Your task to perform on an android device: change text size in settings app Image 0: 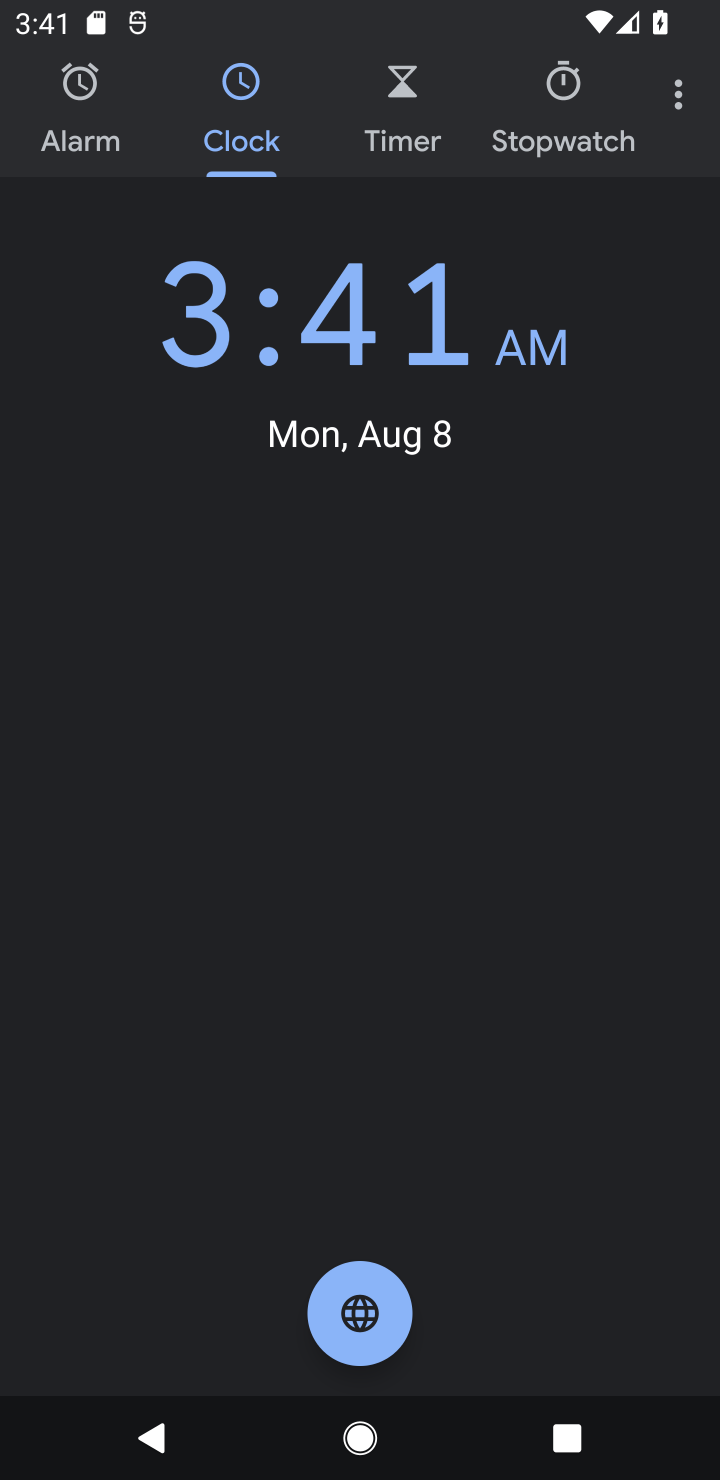
Step 0: press back button
Your task to perform on an android device: change text size in settings app Image 1: 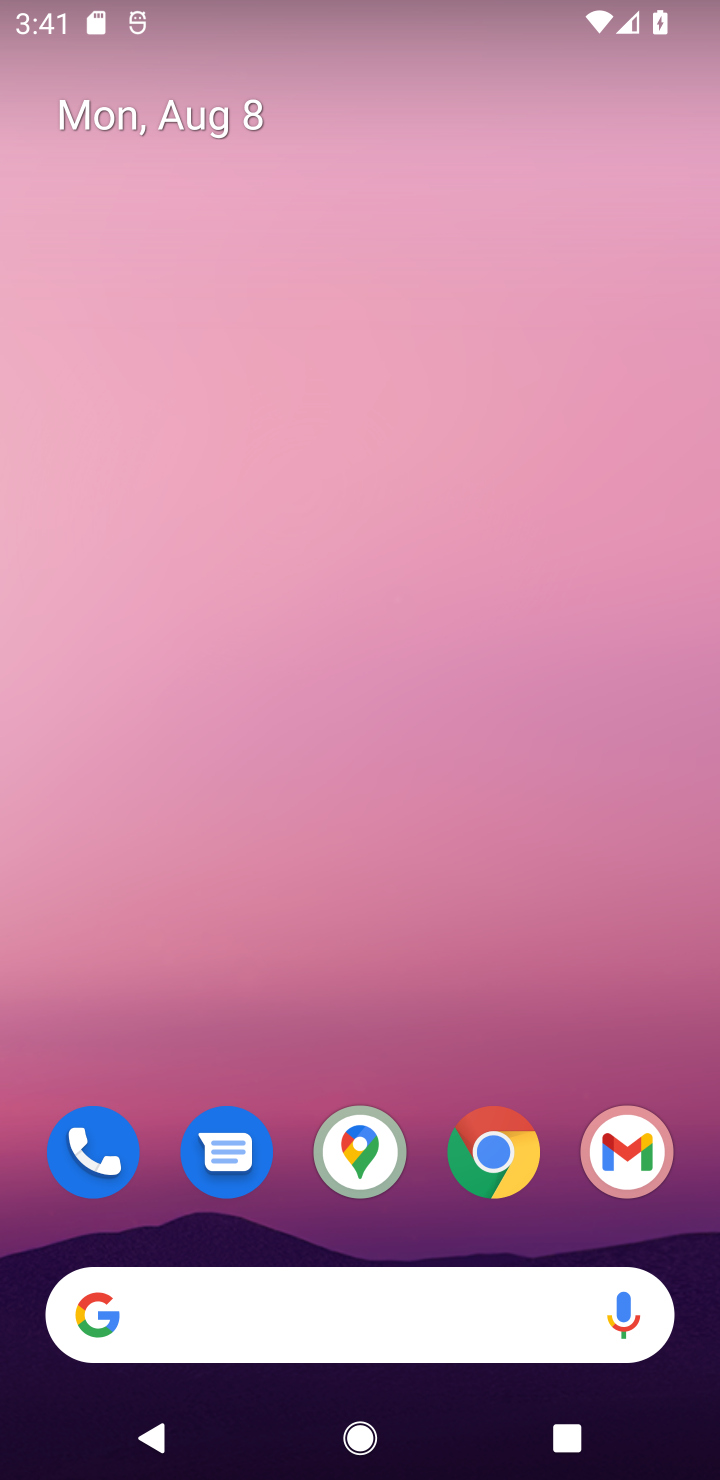
Step 1: drag from (282, 864) to (403, 86)
Your task to perform on an android device: change text size in settings app Image 2: 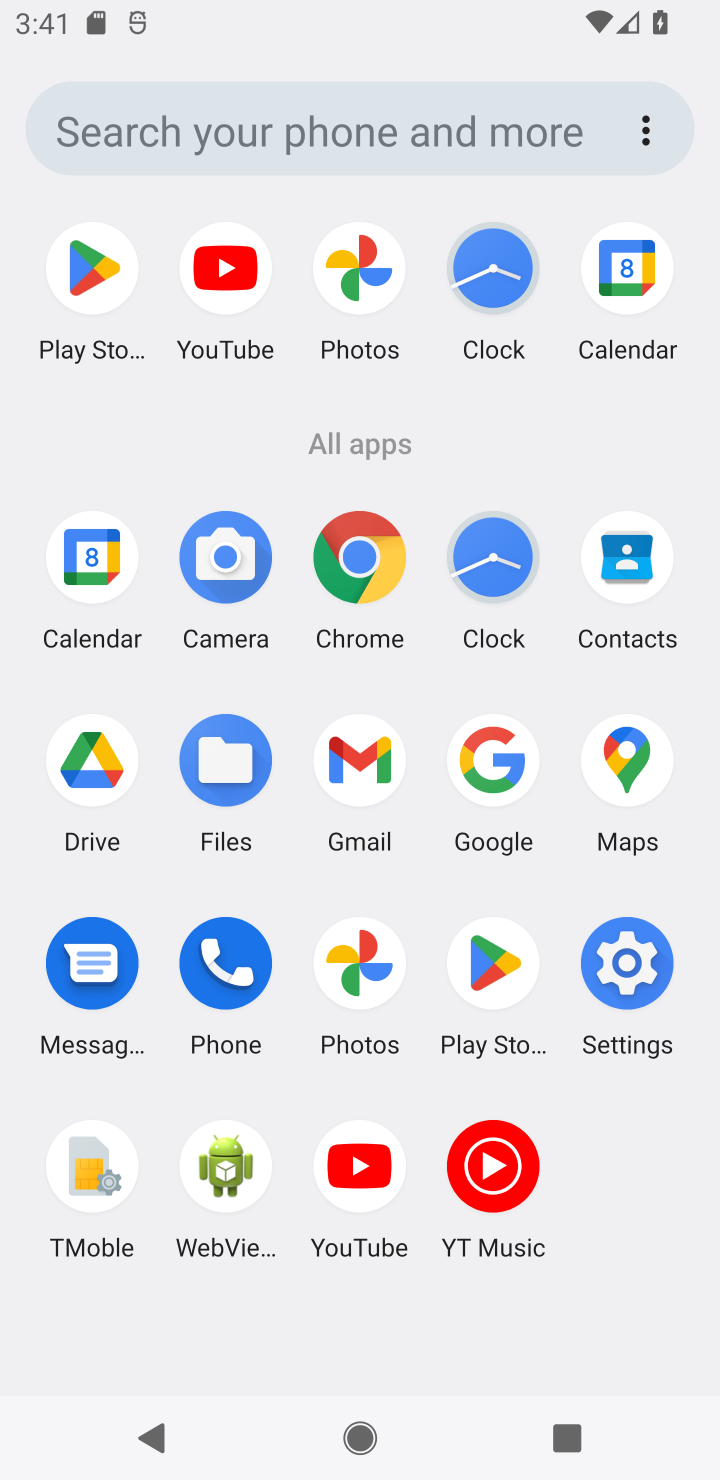
Step 2: click (631, 950)
Your task to perform on an android device: change text size in settings app Image 3: 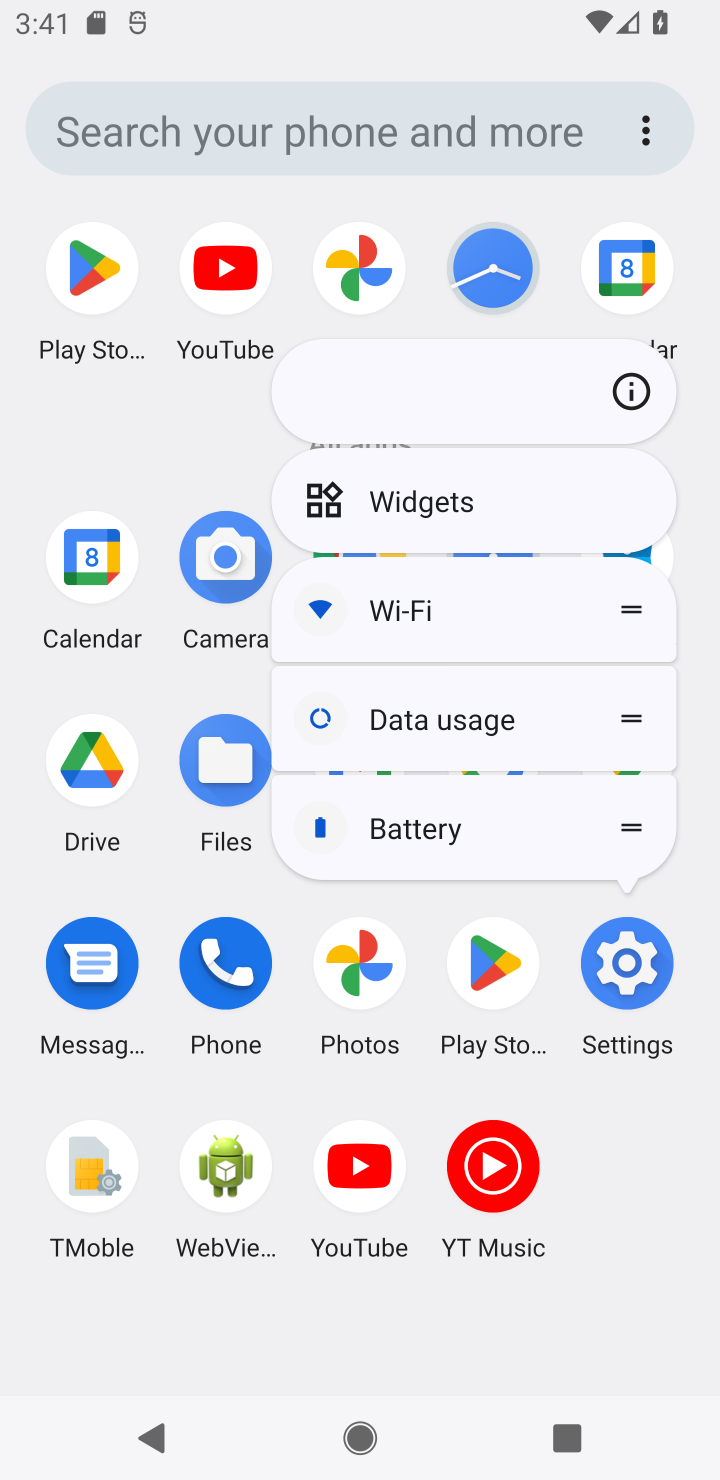
Step 3: click (641, 985)
Your task to perform on an android device: change text size in settings app Image 4: 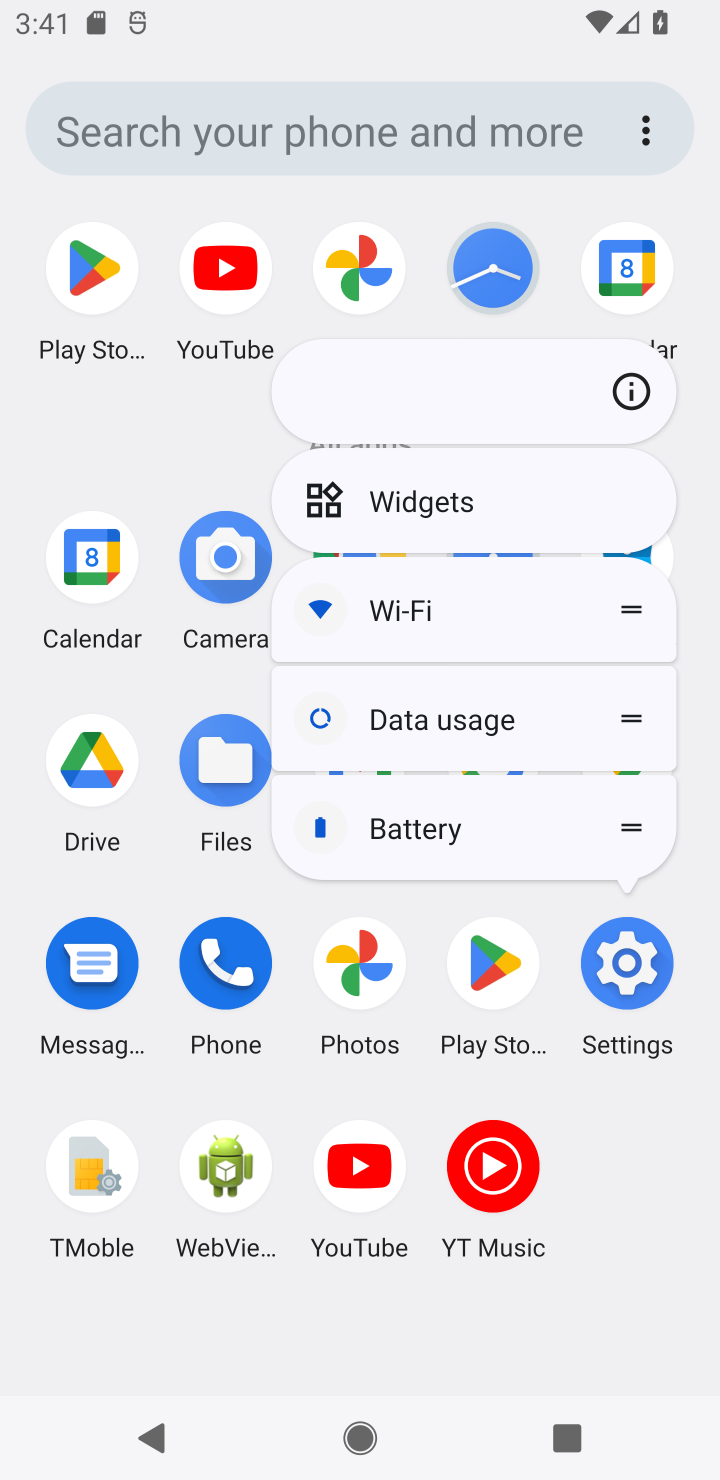
Step 4: click (621, 937)
Your task to perform on an android device: change text size in settings app Image 5: 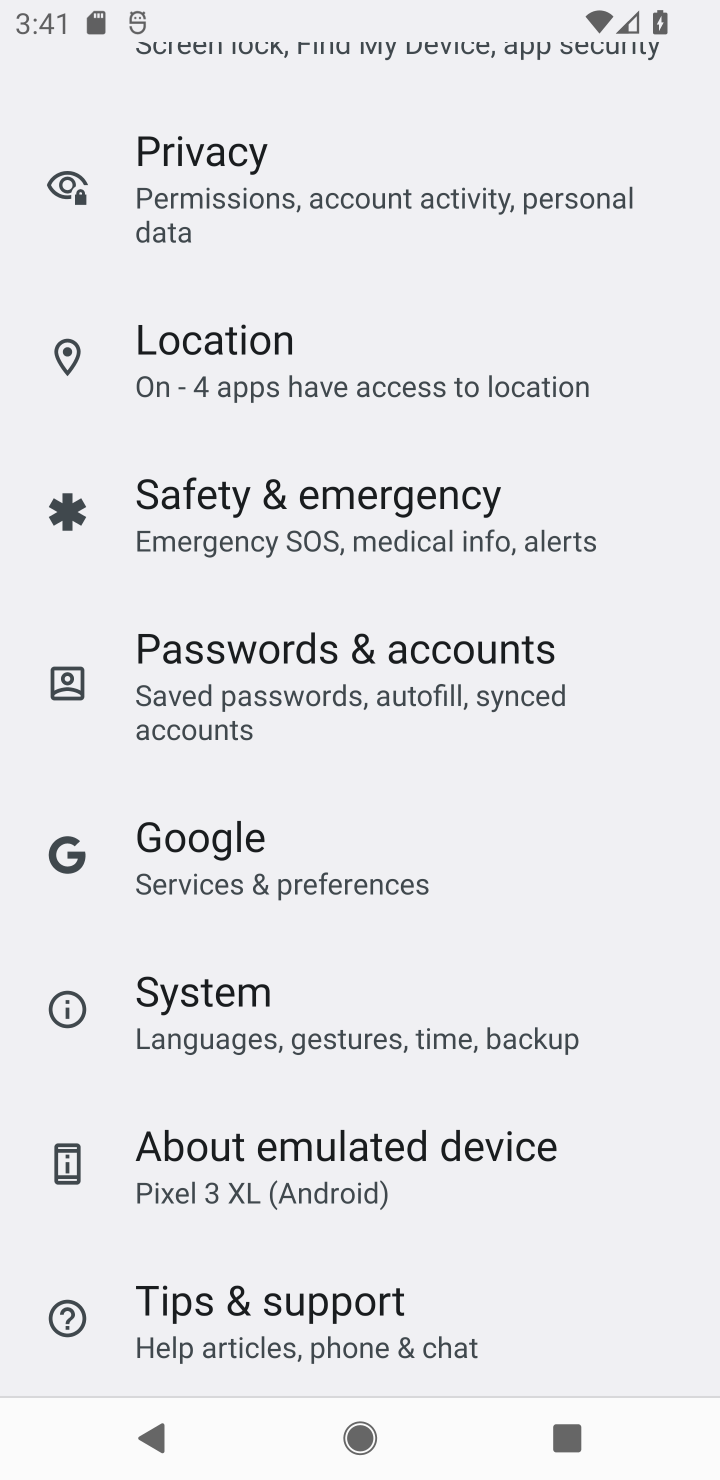
Step 5: drag from (266, 317) to (293, 1468)
Your task to perform on an android device: change text size in settings app Image 6: 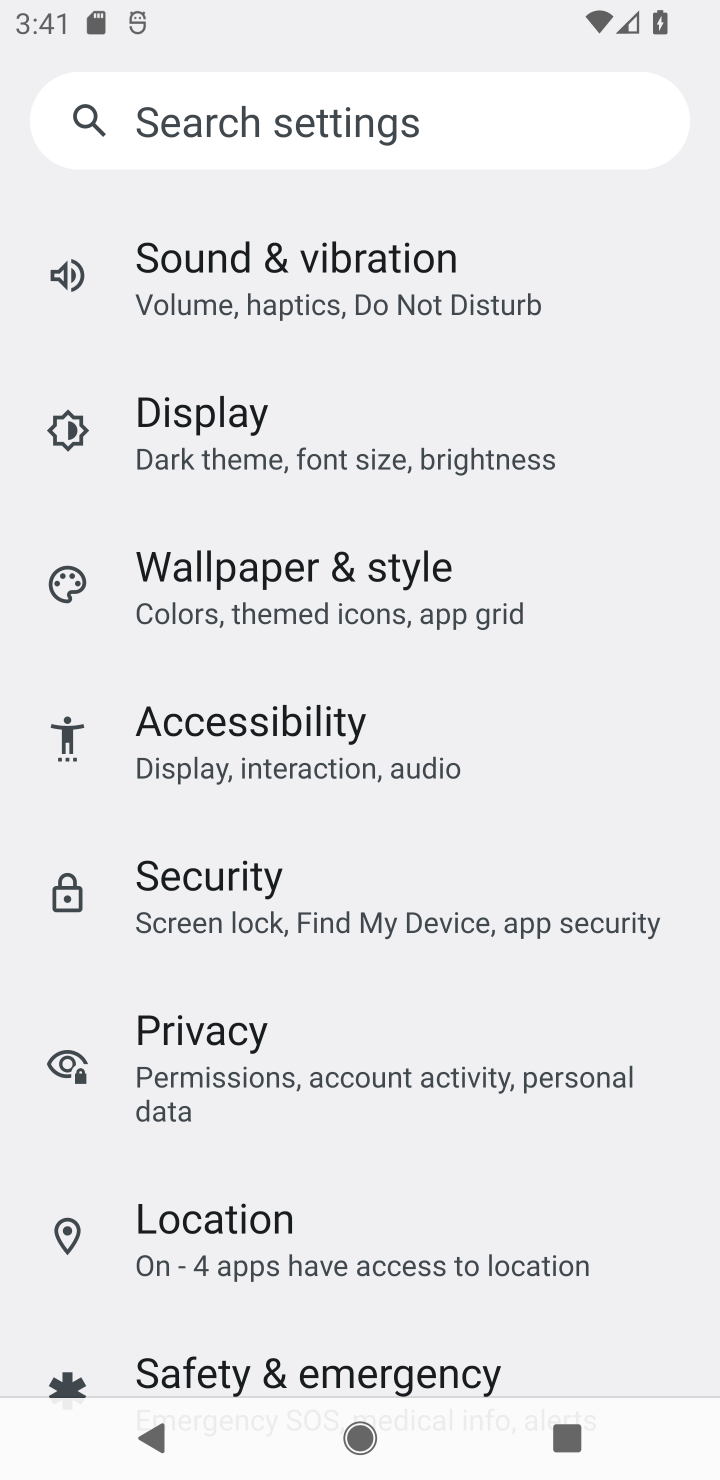
Step 6: click (297, 116)
Your task to perform on an android device: change text size in settings app Image 7: 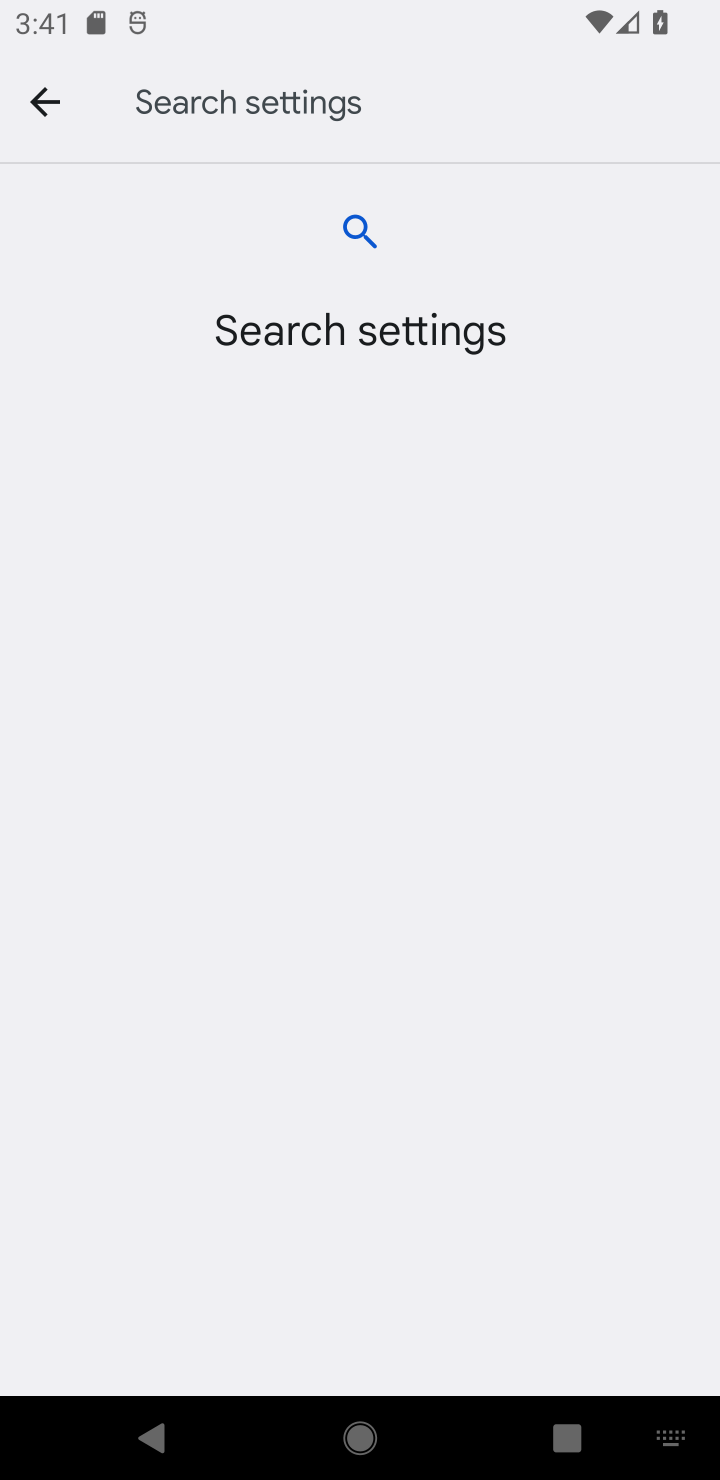
Step 7: type "text size"
Your task to perform on an android device: change text size in settings app Image 8: 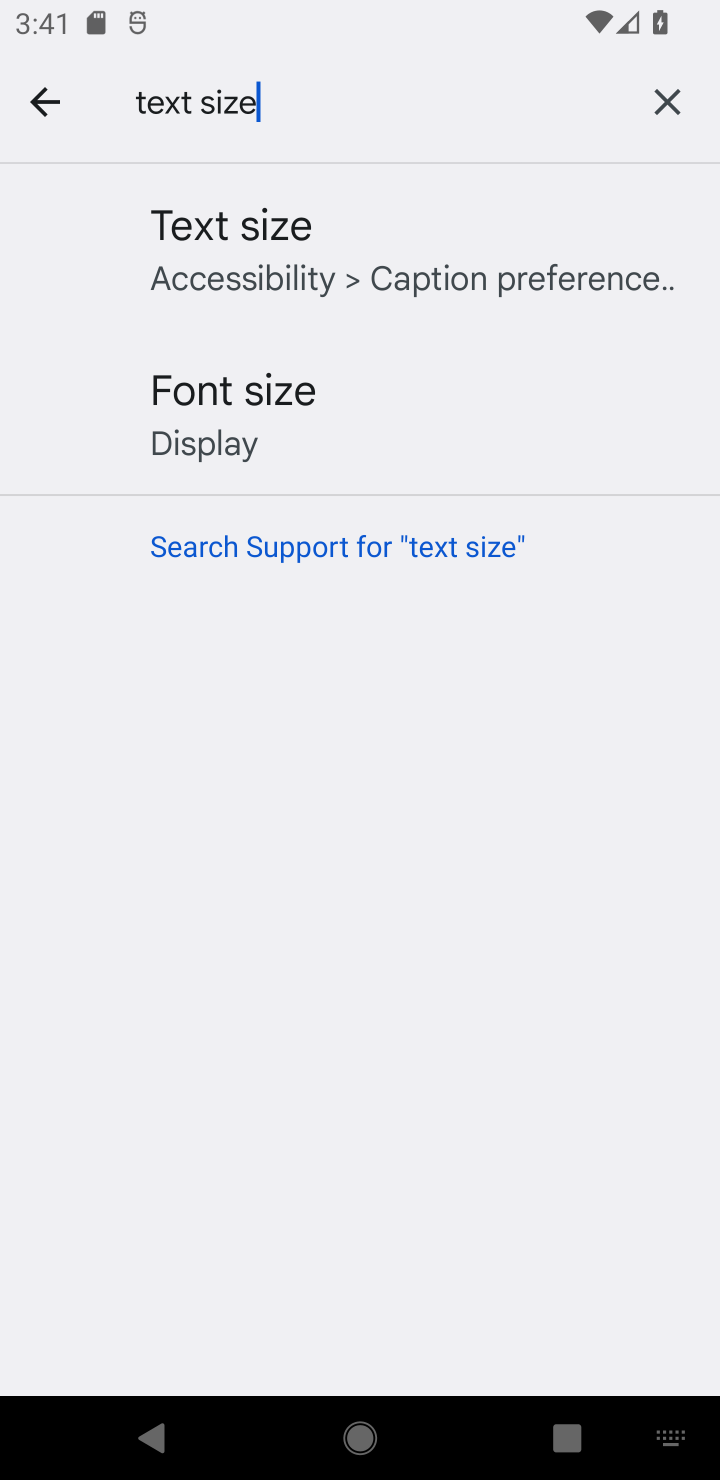
Step 8: click (259, 404)
Your task to perform on an android device: change text size in settings app Image 9: 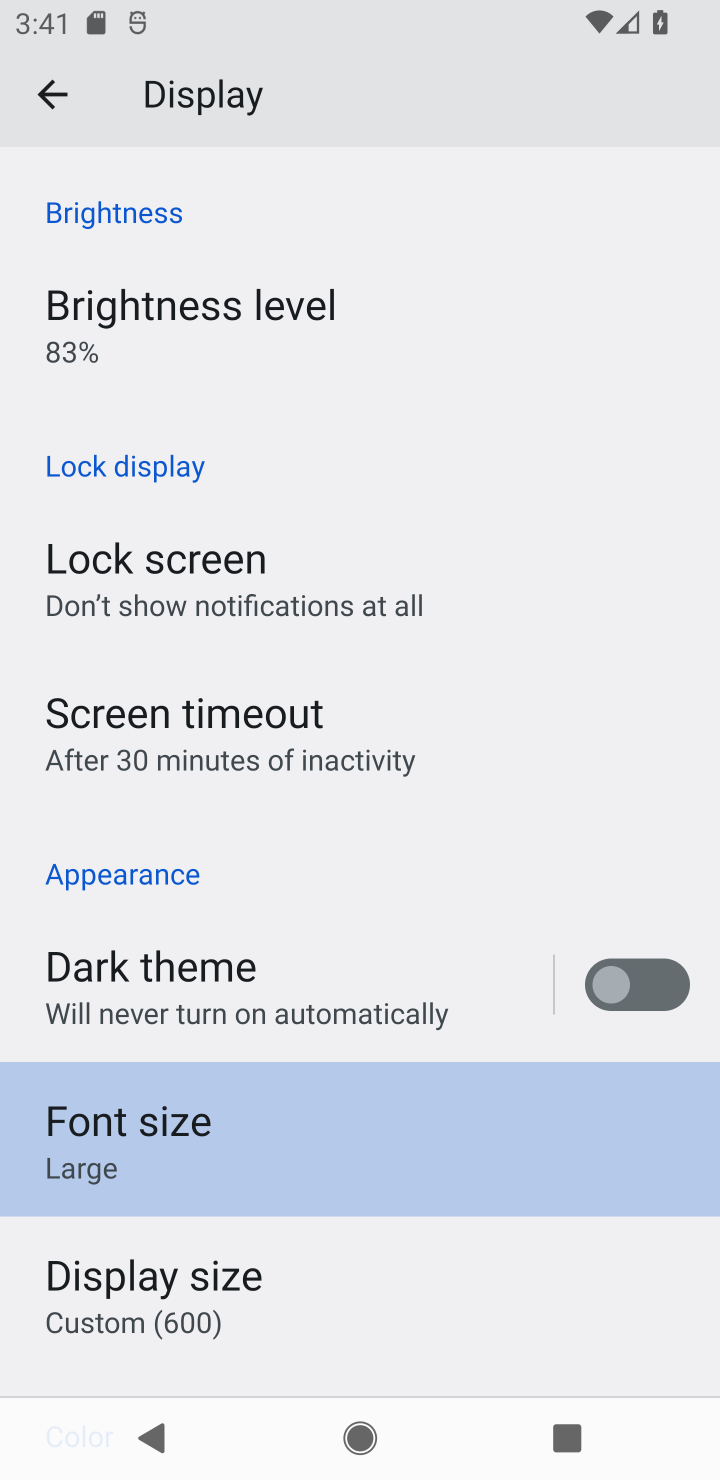
Step 9: click (203, 1302)
Your task to perform on an android device: change text size in settings app Image 10: 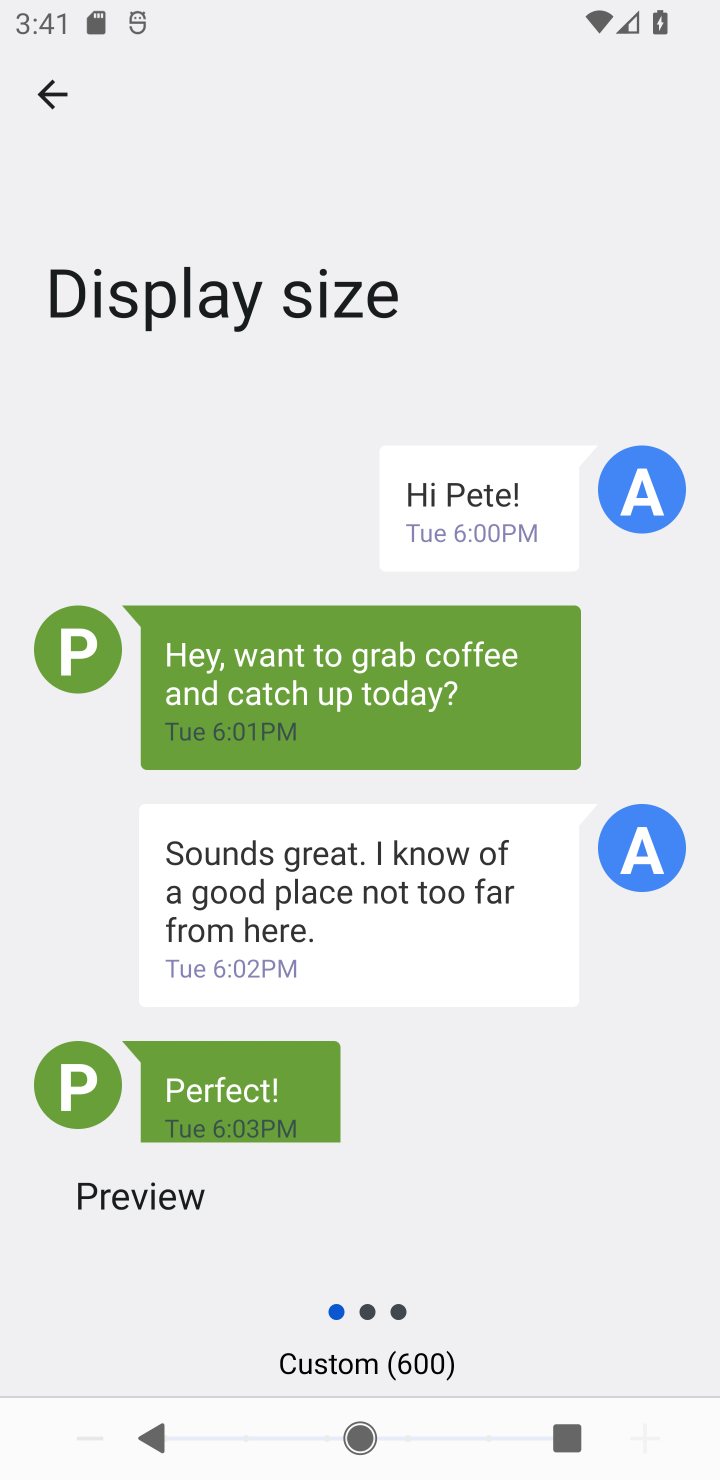
Step 10: click (54, 71)
Your task to perform on an android device: change text size in settings app Image 11: 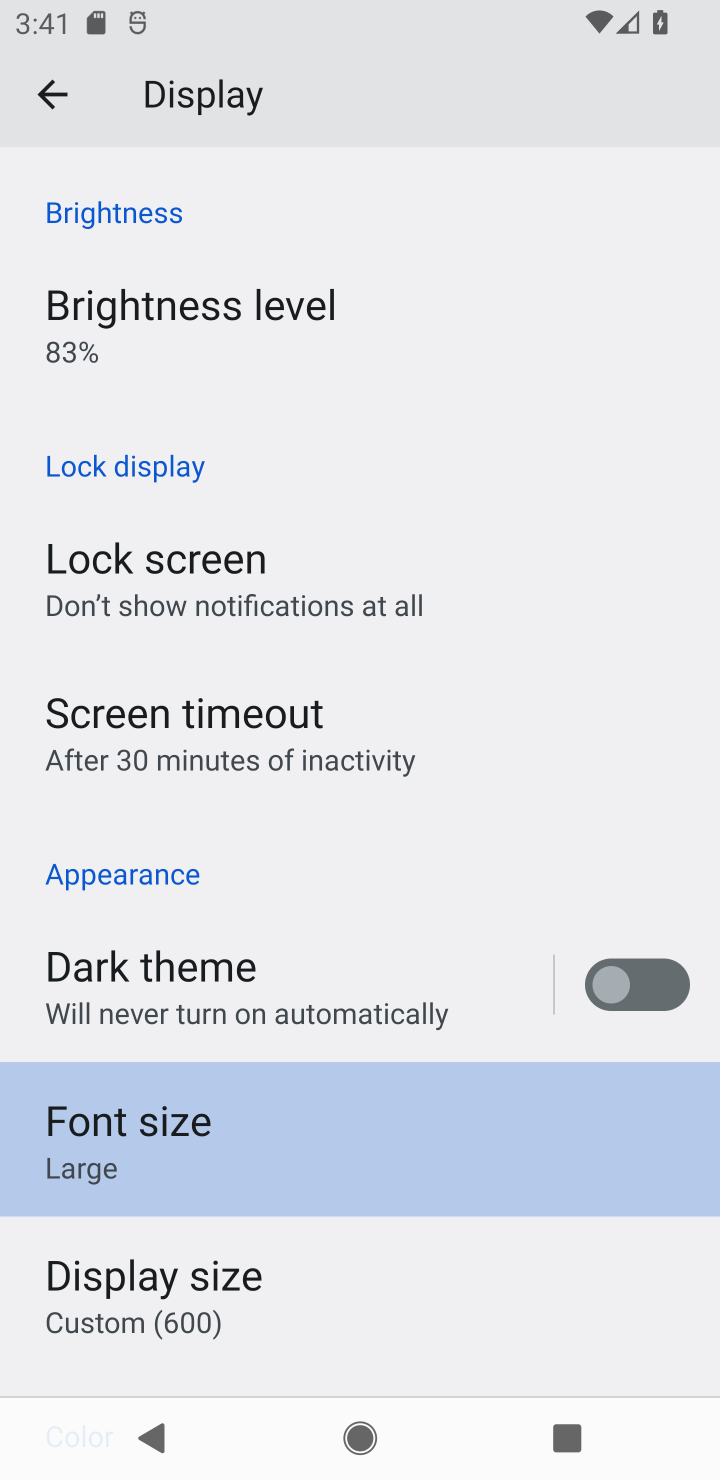
Step 11: click (210, 1187)
Your task to perform on an android device: change text size in settings app Image 12: 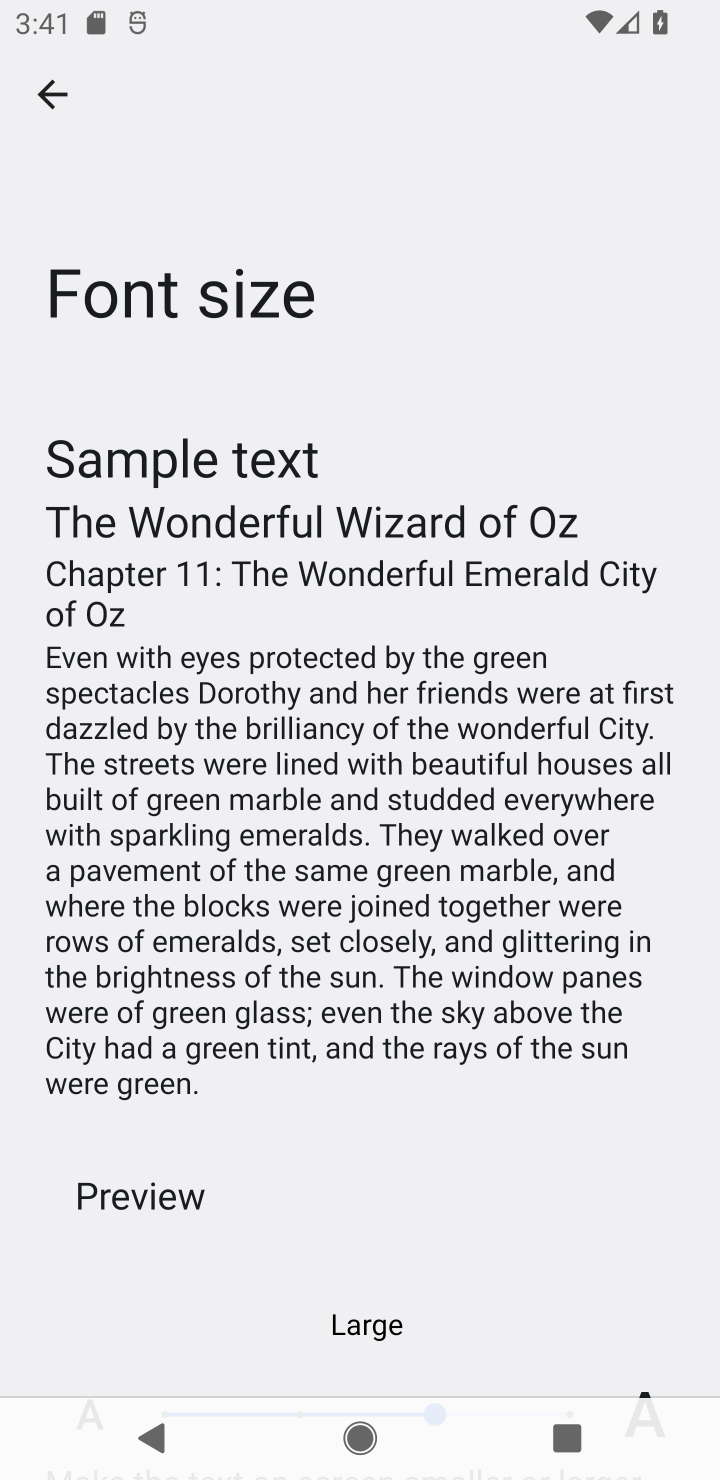
Step 12: drag from (402, 1226) to (568, 278)
Your task to perform on an android device: change text size in settings app Image 13: 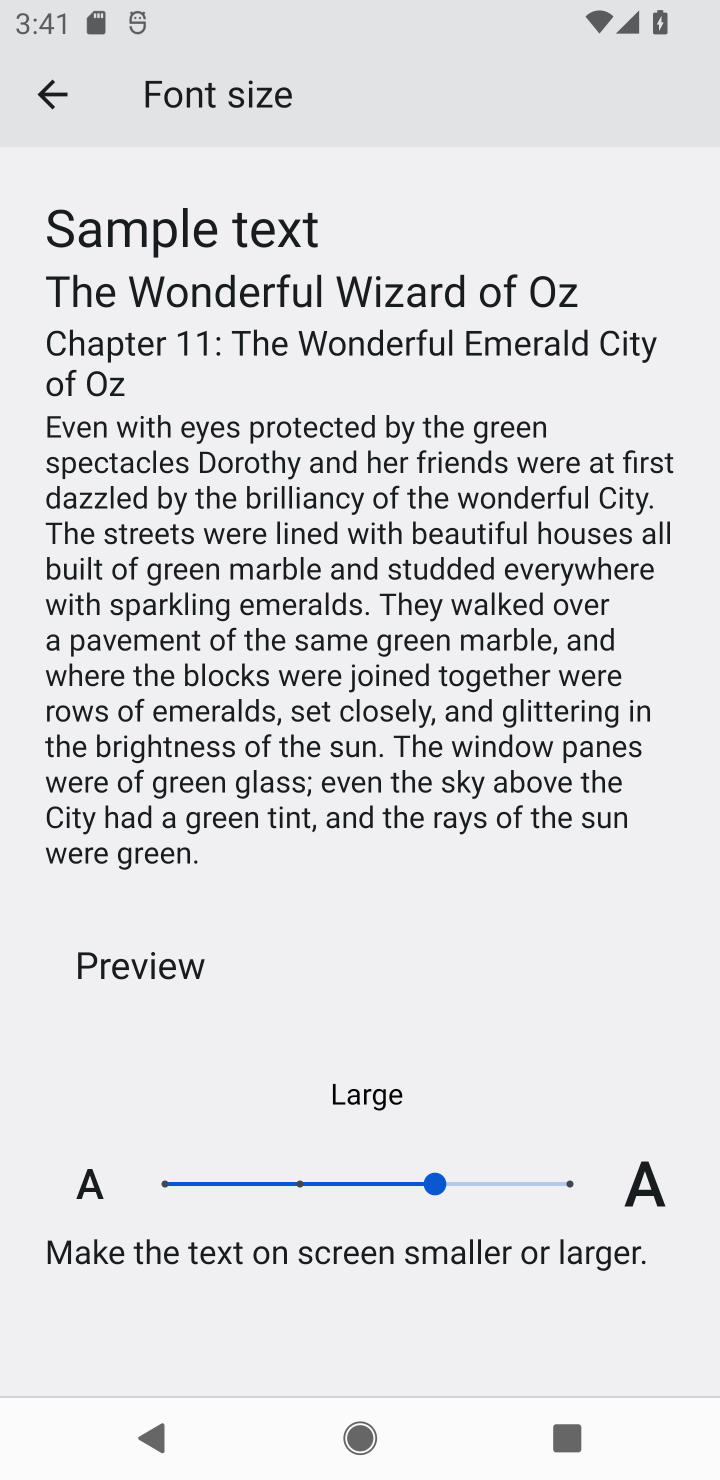
Step 13: click (300, 1186)
Your task to perform on an android device: change text size in settings app Image 14: 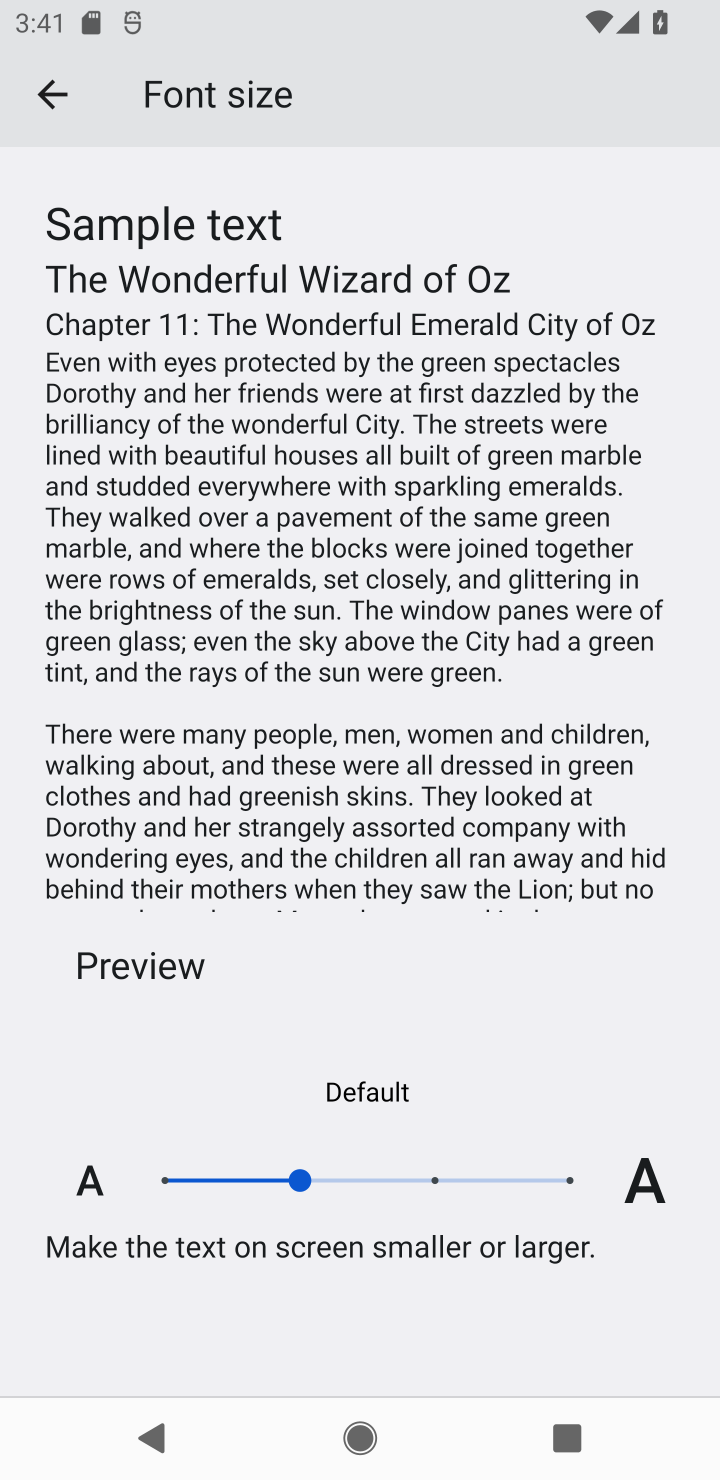
Step 14: task complete